Your task to perform on an android device: Go to sound settings Image 0: 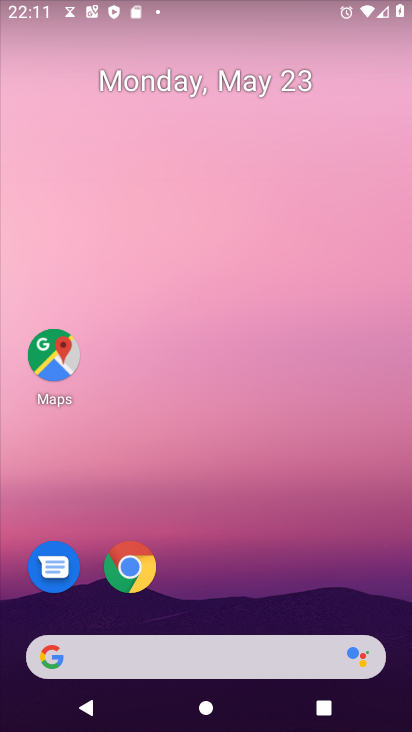
Step 0: drag from (228, 634) to (293, 405)
Your task to perform on an android device: Go to sound settings Image 1: 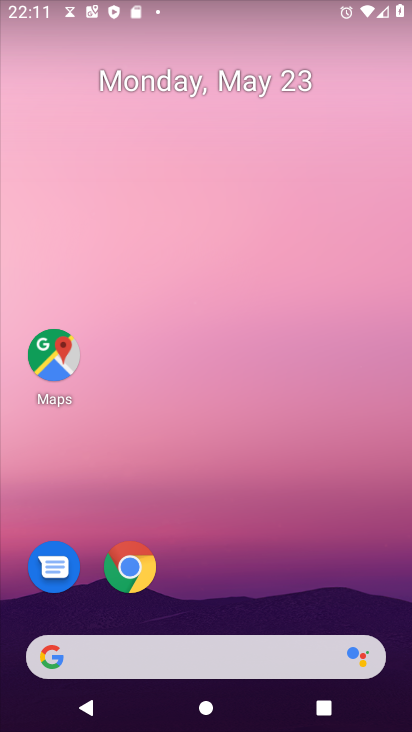
Step 1: drag from (249, 595) to (284, 285)
Your task to perform on an android device: Go to sound settings Image 2: 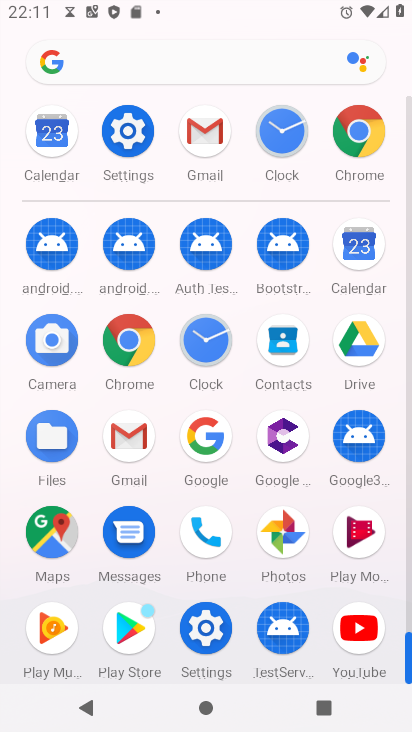
Step 2: click (122, 125)
Your task to perform on an android device: Go to sound settings Image 3: 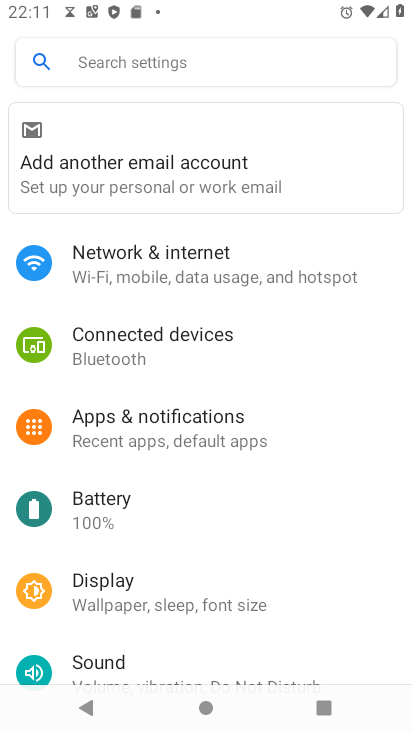
Step 3: drag from (196, 640) to (249, 442)
Your task to perform on an android device: Go to sound settings Image 4: 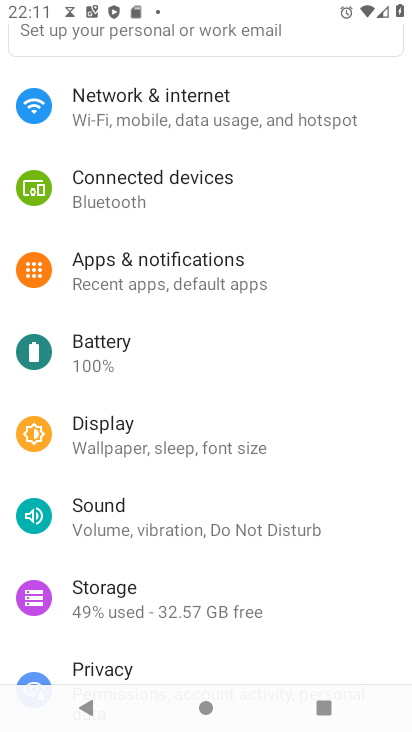
Step 4: click (172, 495)
Your task to perform on an android device: Go to sound settings Image 5: 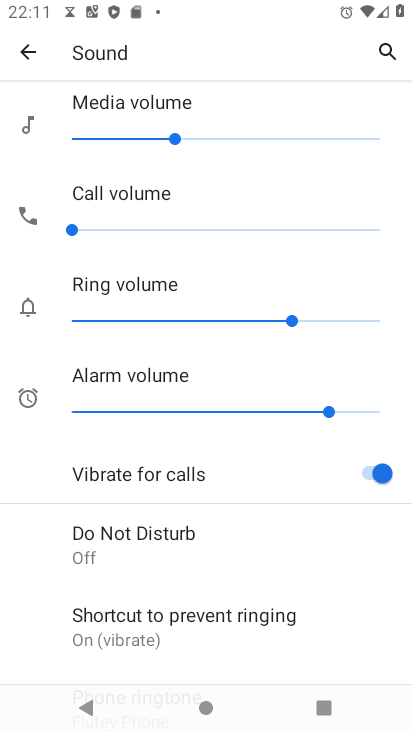
Step 5: task complete